Your task to perform on an android device: add a contact Image 0: 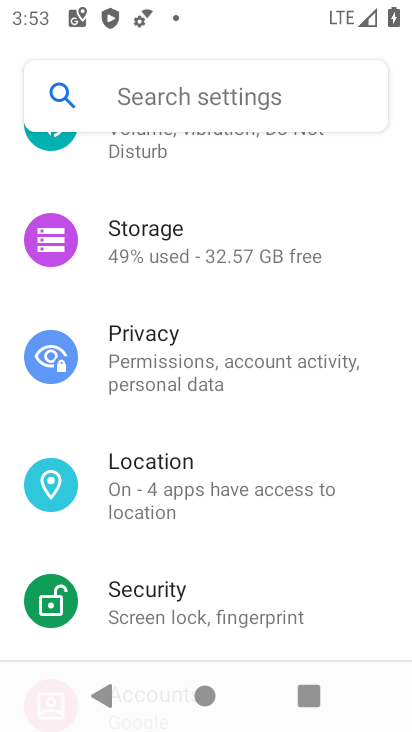
Step 0: press home button
Your task to perform on an android device: add a contact Image 1: 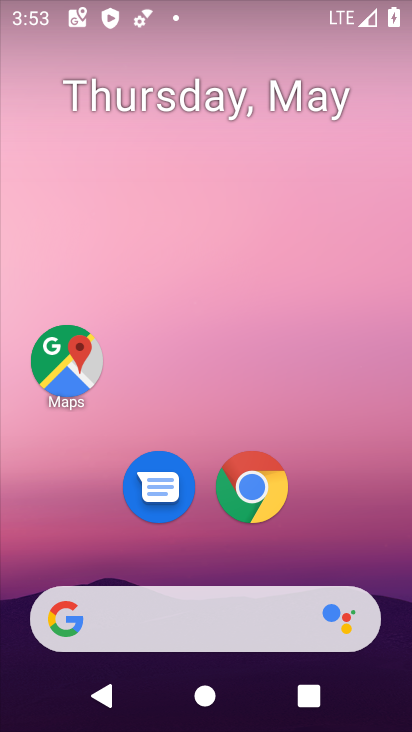
Step 1: drag from (178, 550) to (261, 164)
Your task to perform on an android device: add a contact Image 2: 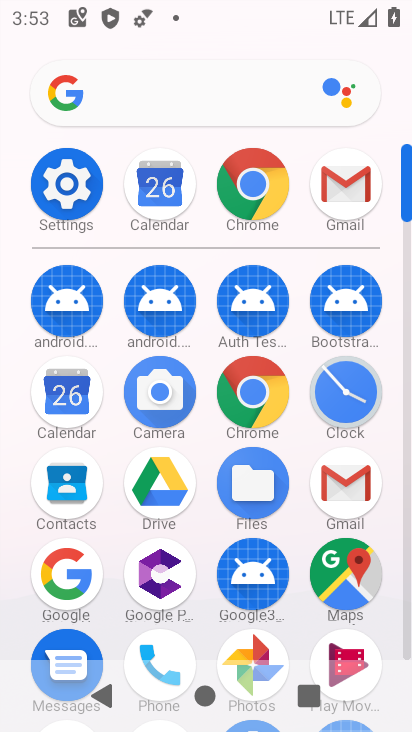
Step 2: click (86, 474)
Your task to perform on an android device: add a contact Image 3: 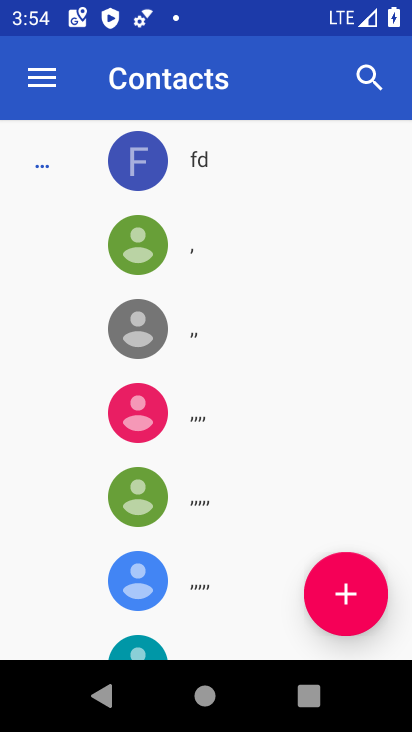
Step 3: click (349, 596)
Your task to perform on an android device: add a contact Image 4: 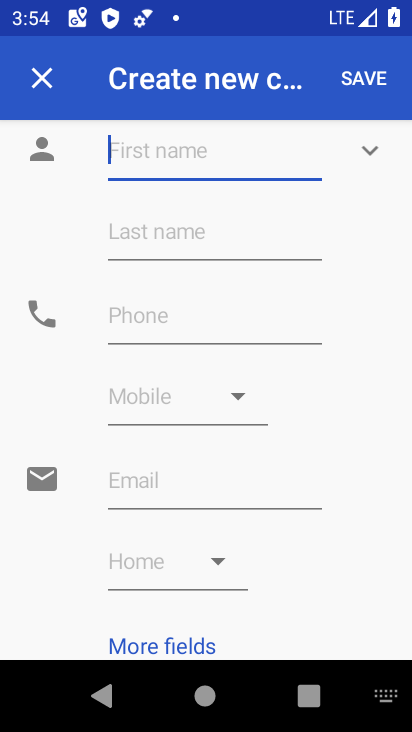
Step 4: type "ghhghgghg"
Your task to perform on an android device: add a contact Image 5: 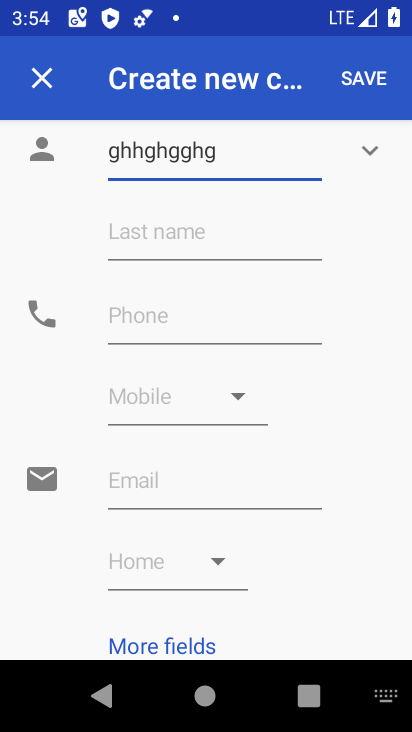
Step 5: click (200, 311)
Your task to perform on an android device: add a contact Image 6: 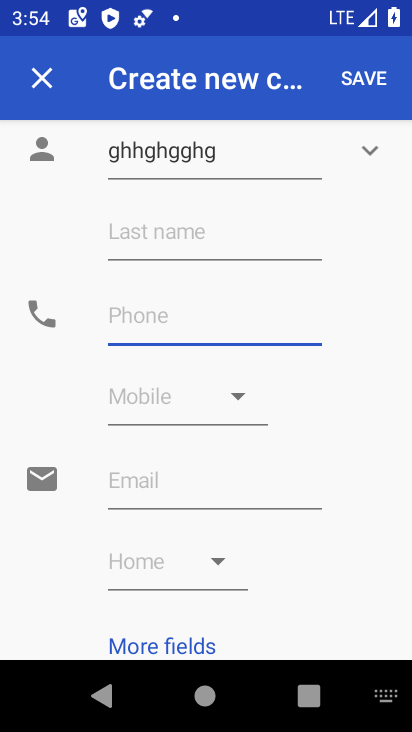
Step 6: type "989855465"
Your task to perform on an android device: add a contact Image 7: 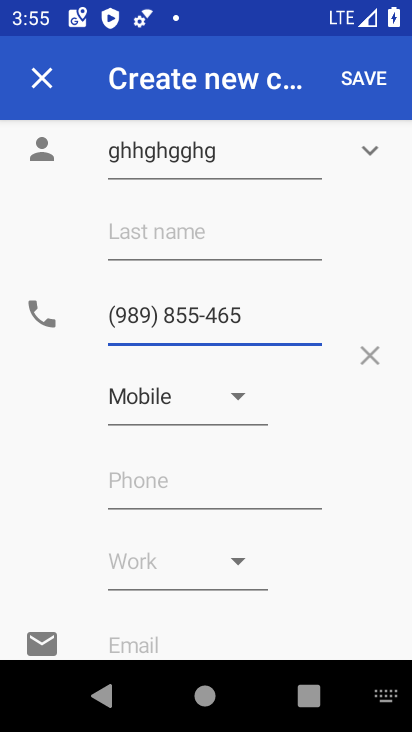
Step 7: type "7"
Your task to perform on an android device: add a contact Image 8: 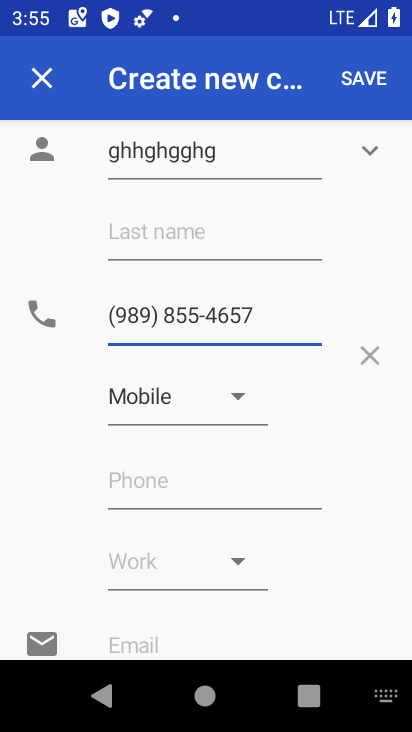
Step 8: click (369, 101)
Your task to perform on an android device: add a contact Image 9: 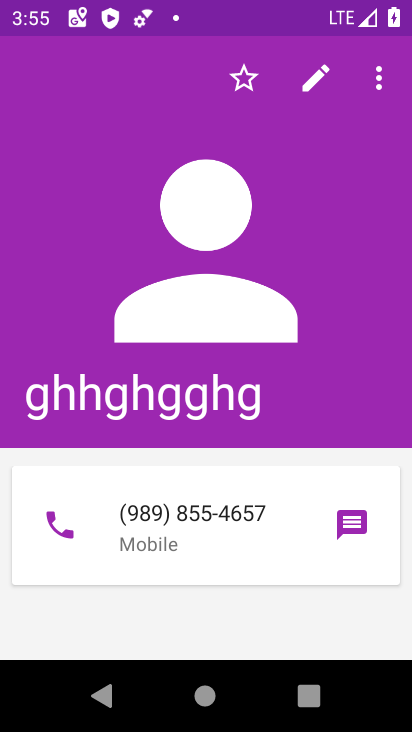
Step 9: task complete